Your task to perform on an android device: toggle improve location accuracy Image 0: 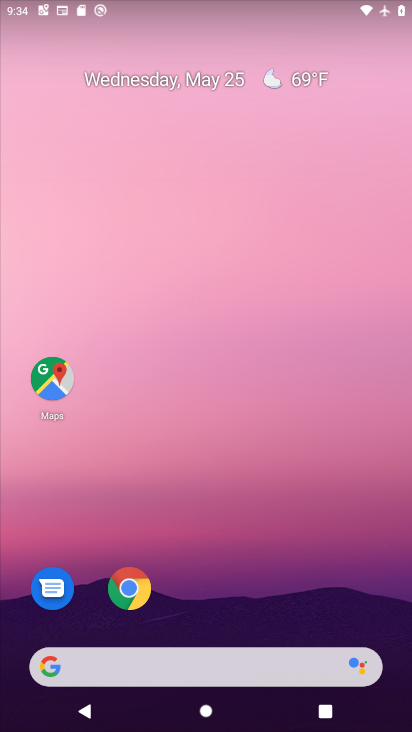
Step 0: drag from (388, 617) to (364, 178)
Your task to perform on an android device: toggle improve location accuracy Image 1: 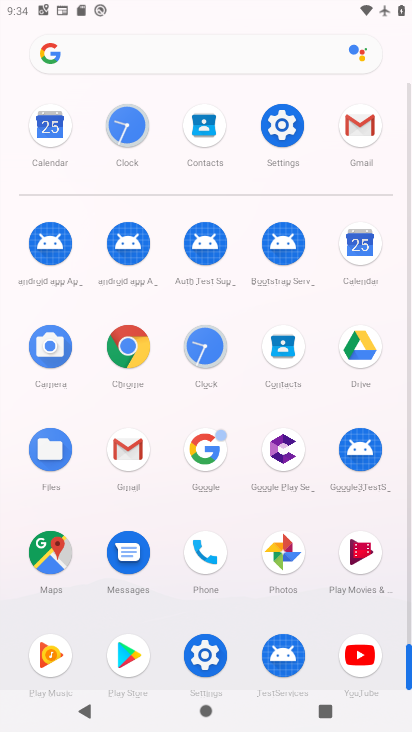
Step 1: click (288, 120)
Your task to perform on an android device: toggle improve location accuracy Image 2: 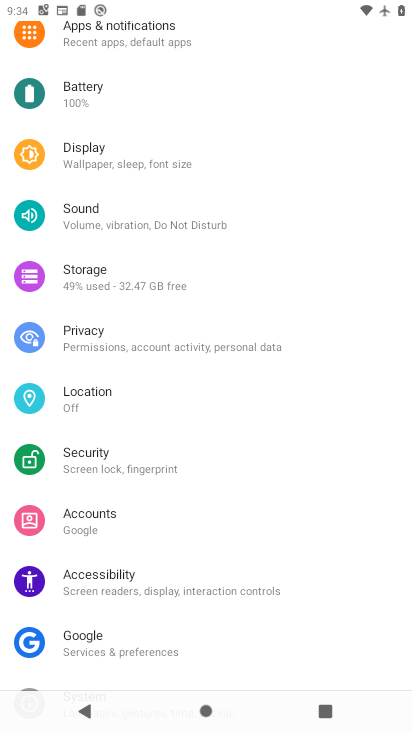
Step 2: drag from (372, 551) to (377, 456)
Your task to perform on an android device: toggle improve location accuracy Image 3: 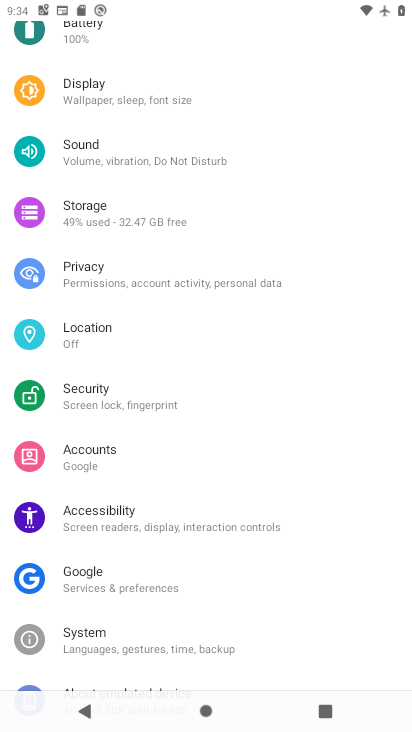
Step 3: drag from (374, 585) to (369, 489)
Your task to perform on an android device: toggle improve location accuracy Image 4: 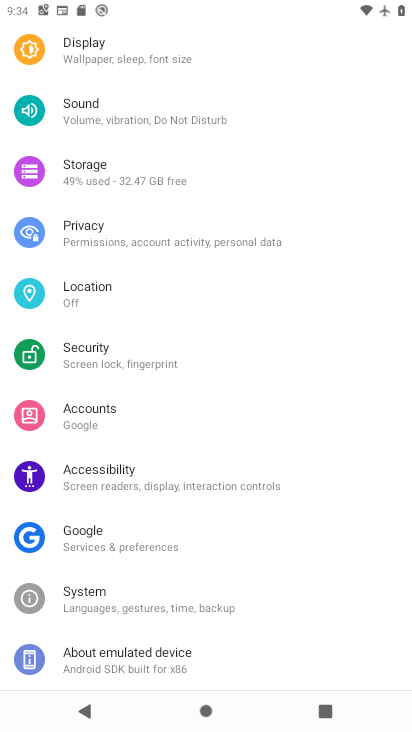
Step 4: drag from (356, 604) to (342, 505)
Your task to perform on an android device: toggle improve location accuracy Image 5: 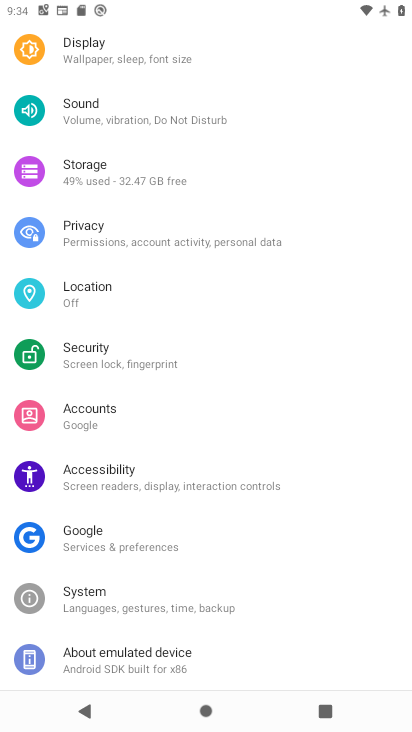
Step 5: drag from (322, 386) to (322, 464)
Your task to perform on an android device: toggle improve location accuracy Image 6: 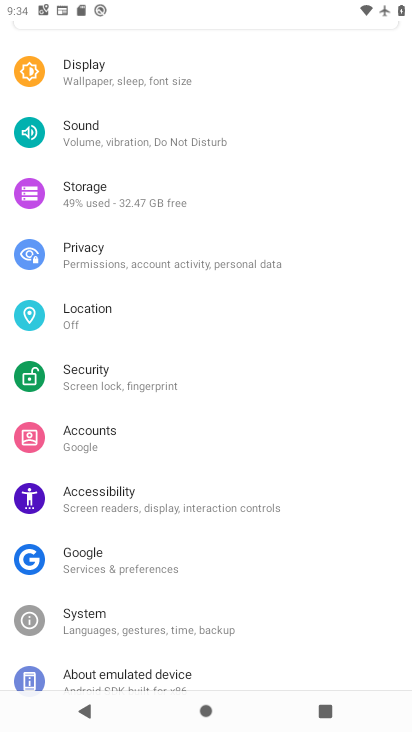
Step 6: drag from (342, 308) to (350, 431)
Your task to perform on an android device: toggle improve location accuracy Image 7: 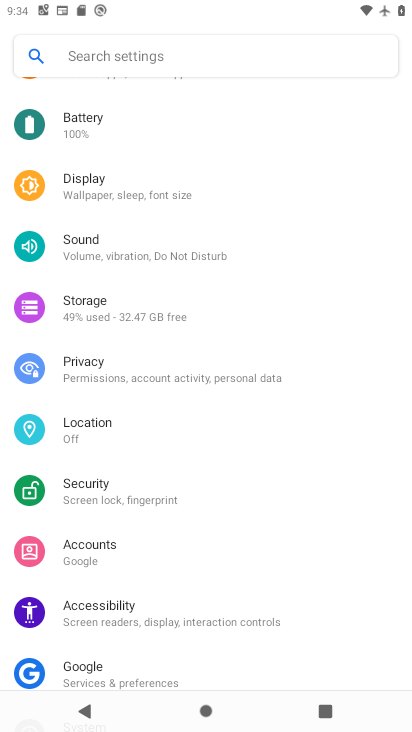
Step 7: drag from (346, 275) to (353, 374)
Your task to perform on an android device: toggle improve location accuracy Image 8: 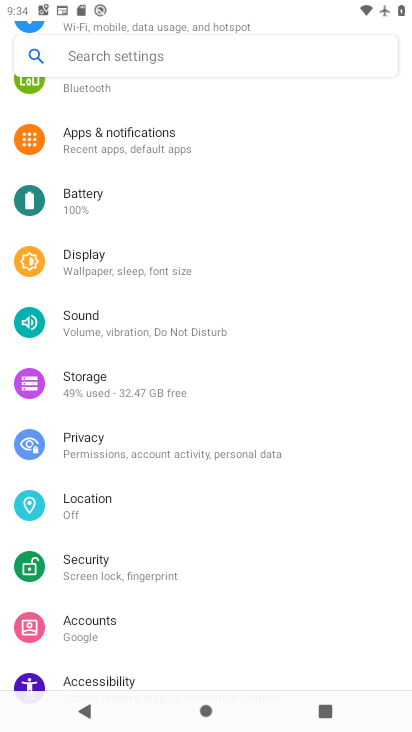
Step 8: drag from (332, 248) to (337, 392)
Your task to perform on an android device: toggle improve location accuracy Image 9: 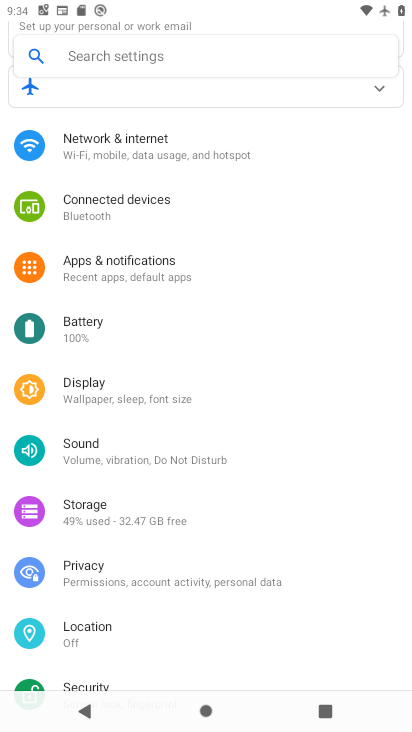
Step 9: click (113, 636)
Your task to perform on an android device: toggle improve location accuracy Image 10: 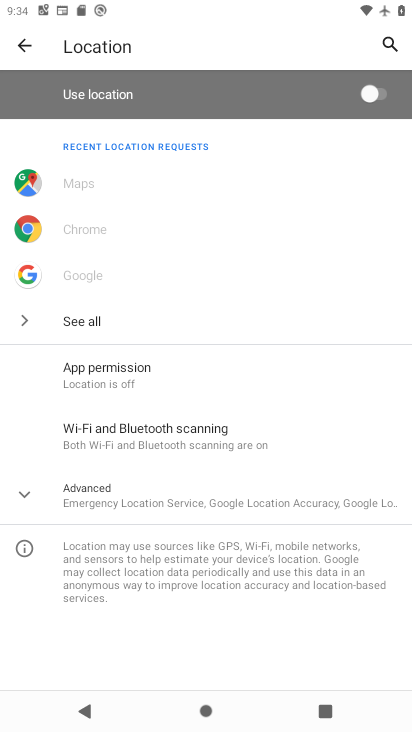
Step 10: click (250, 500)
Your task to perform on an android device: toggle improve location accuracy Image 11: 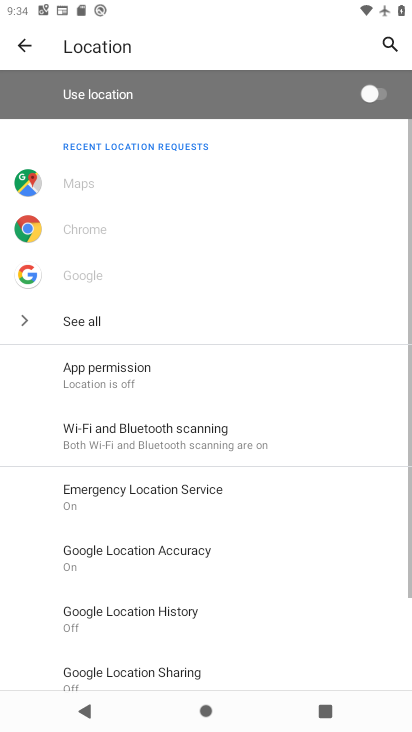
Step 11: drag from (257, 559) to (273, 467)
Your task to perform on an android device: toggle improve location accuracy Image 12: 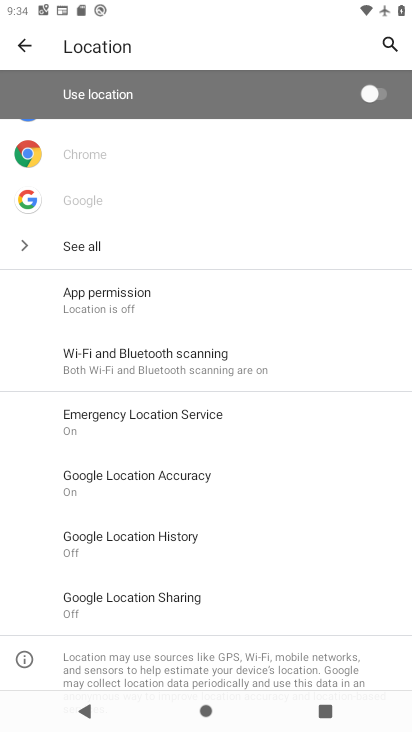
Step 12: click (189, 478)
Your task to perform on an android device: toggle improve location accuracy Image 13: 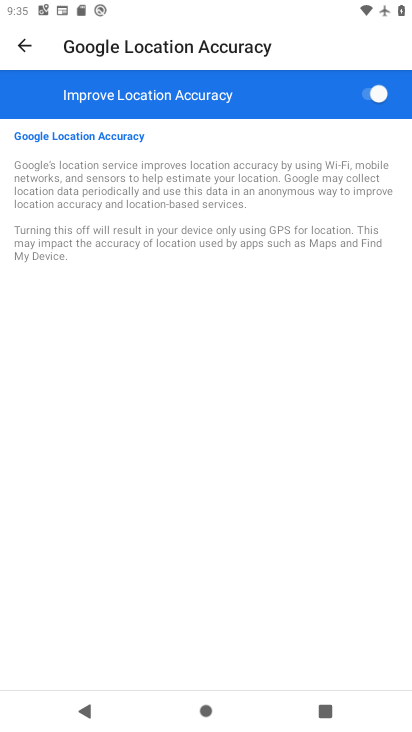
Step 13: click (365, 93)
Your task to perform on an android device: toggle improve location accuracy Image 14: 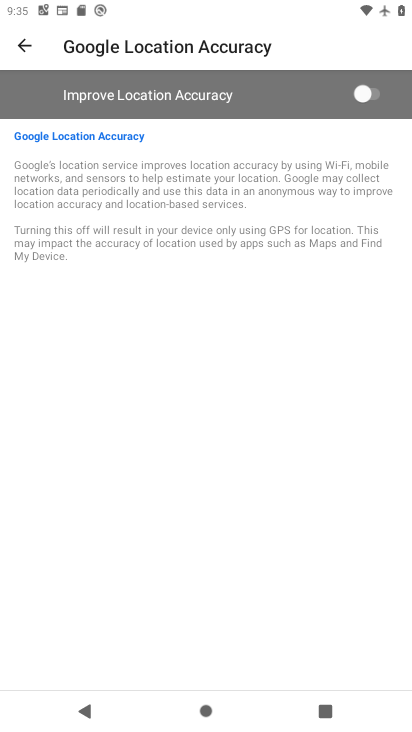
Step 14: task complete